Your task to perform on an android device: turn off priority inbox in the gmail app Image 0: 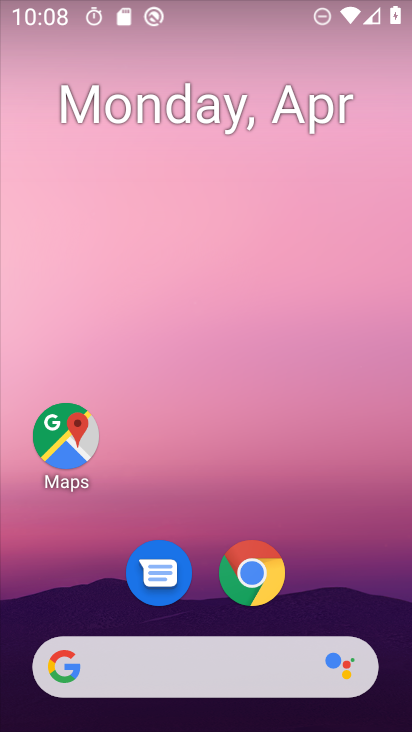
Step 0: drag from (329, 458) to (313, 78)
Your task to perform on an android device: turn off priority inbox in the gmail app Image 1: 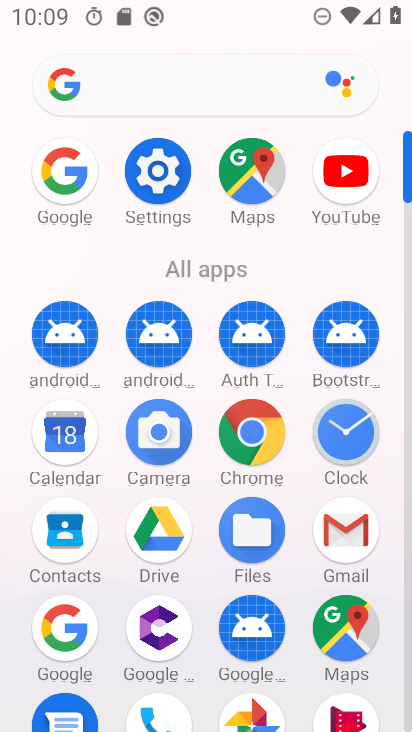
Step 1: click (341, 528)
Your task to perform on an android device: turn off priority inbox in the gmail app Image 2: 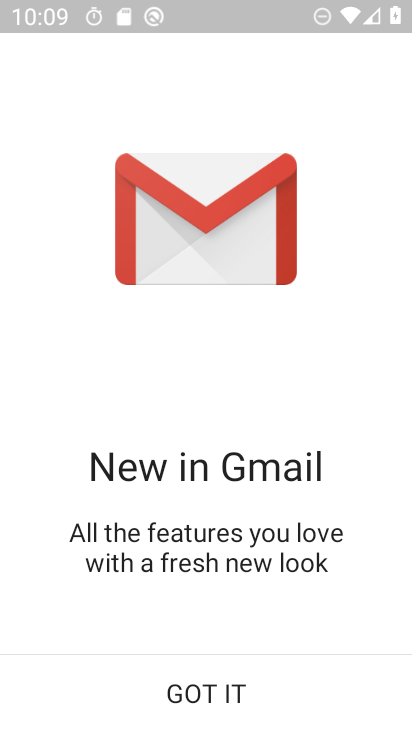
Step 2: click (188, 678)
Your task to perform on an android device: turn off priority inbox in the gmail app Image 3: 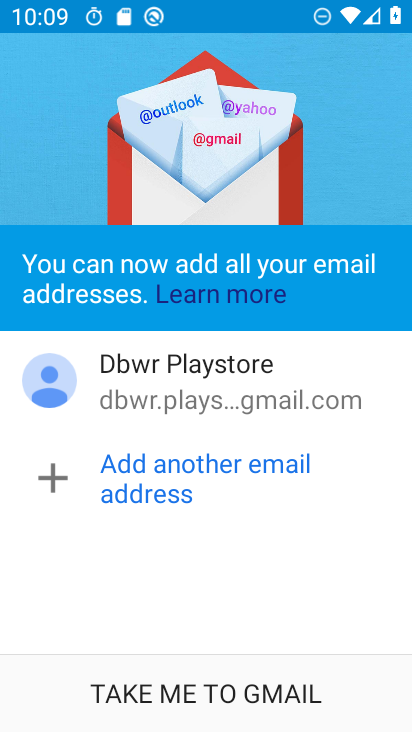
Step 3: click (164, 705)
Your task to perform on an android device: turn off priority inbox in the gmail app Image 4: 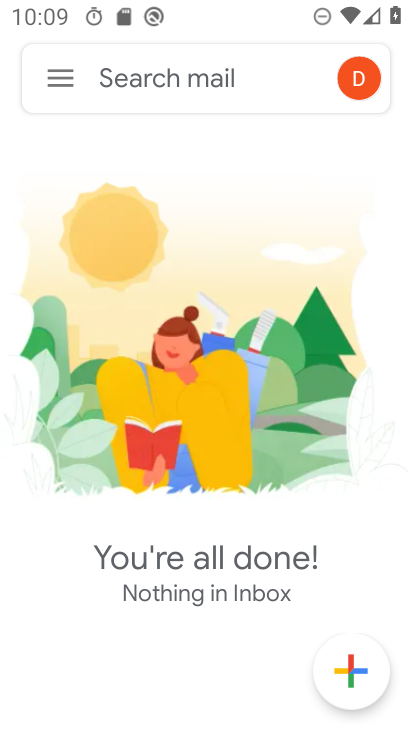
Step 4: click (55, 80)
Your task to perform on an android device: turn off priority inbox in the gmail app Image 5: 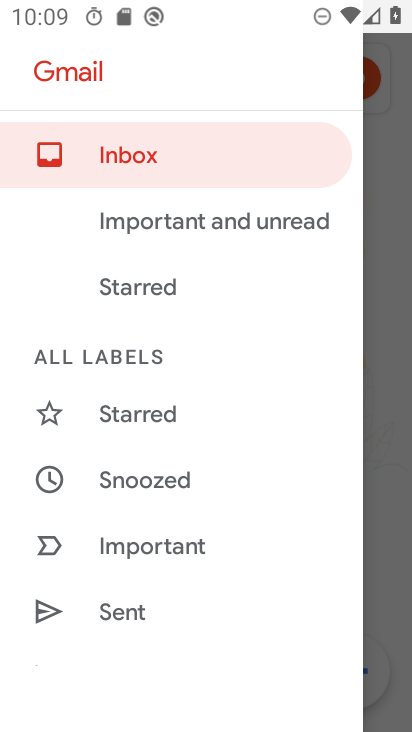
Step 5: drag from (176, 550) to (138, 161)
Your task to perform on an android device: turn off priority inbox in the gmail app Image 6: 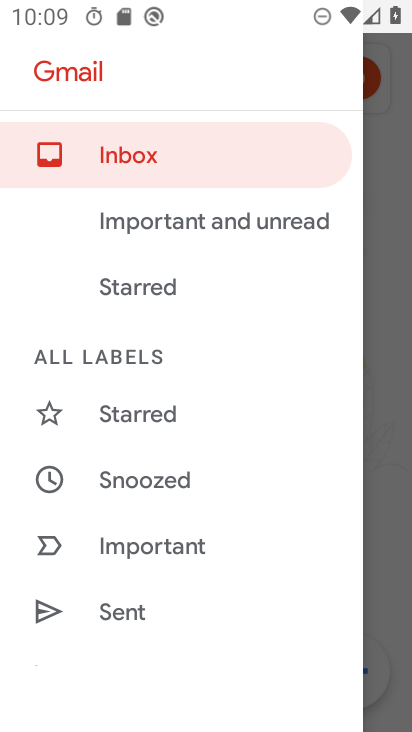
Step 6: drag from (252, 461) to (288, 210)
Your task to perform on an android device: turn off priority inbox in the gmail app Image 7: 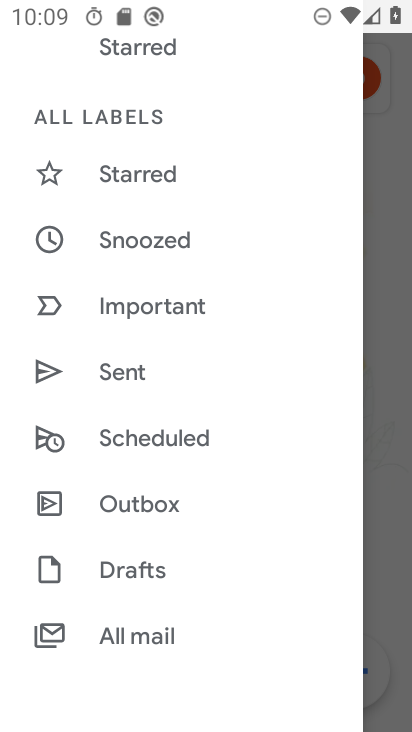
Step 7: drag from (235, 520) to (230, 223)
Your task to perform on an android device: turn off priority inbox in the gmail app Image 8: 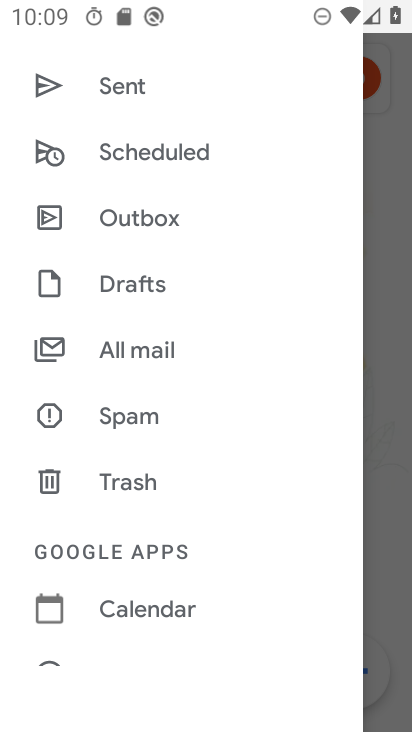
Step 8: drag from (186, 511) to (196, 220)
Your task to perform on an android device: turn off priority inbox in the gmail app Image 9: 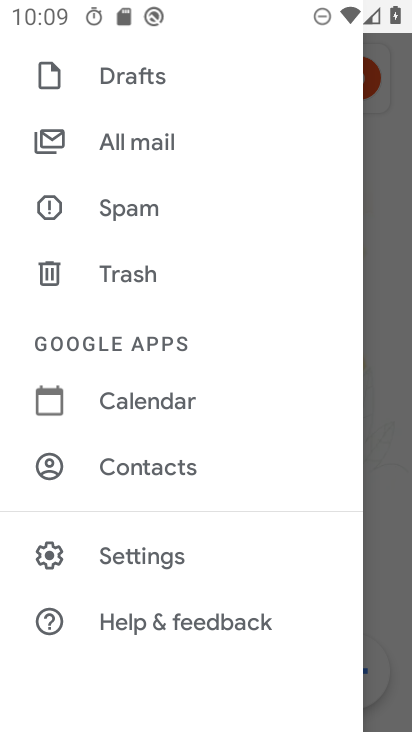
Step 9: click (128, 559)
Your task to perform on an android device: turn off priority inbox in the gmail app Image 10: 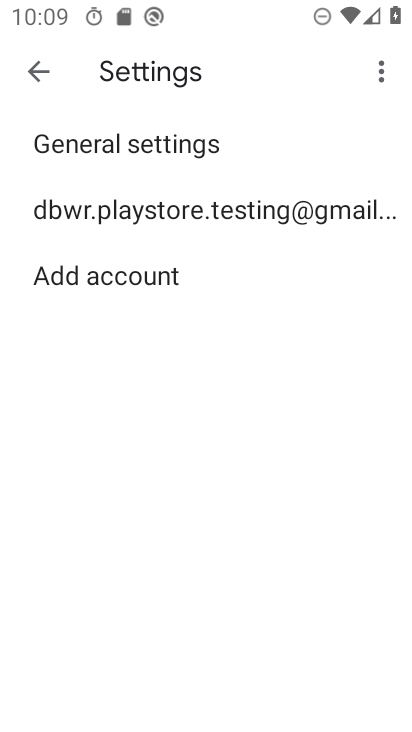
Step 10: click (72, 198)
Your task to perform on an android device: turn off priority inbox in the gmail app Image 11: 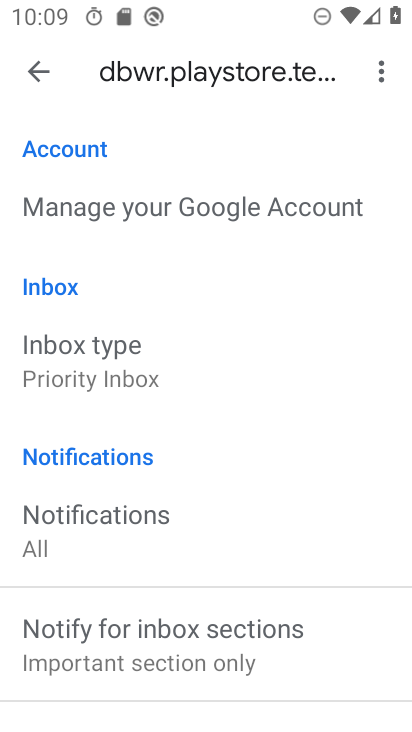
Step 11: click (106, 369)
Your task to perform on an android device: turn off priority inbox in the gmail app Image 12: 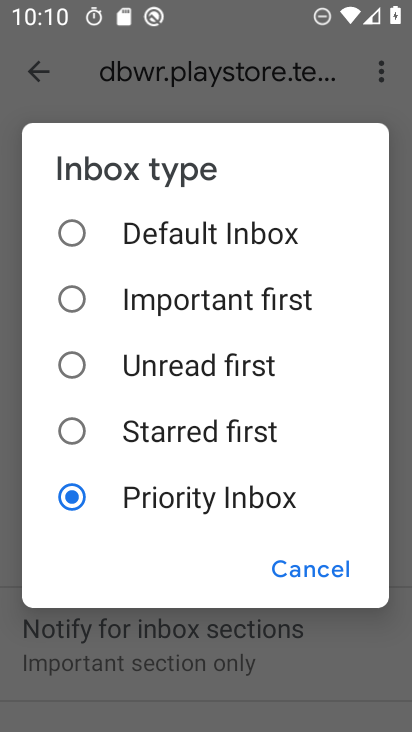
Step 12: click (84, 222)
Your task to perform on an android device: turn off priority inbox in the gmail app Image 13: 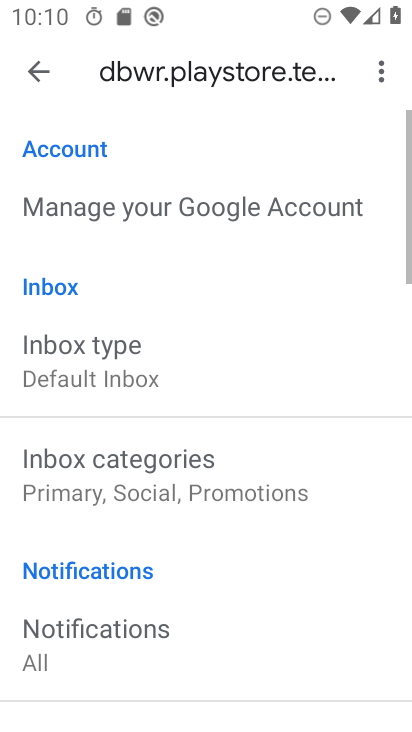
Step 13: task complete